Your task to perform on an android device: open app "Speedtest by Ookla" (install if not already installed) and enter user name: "hyena@outlook.com" and password: "terminators" Image 0: 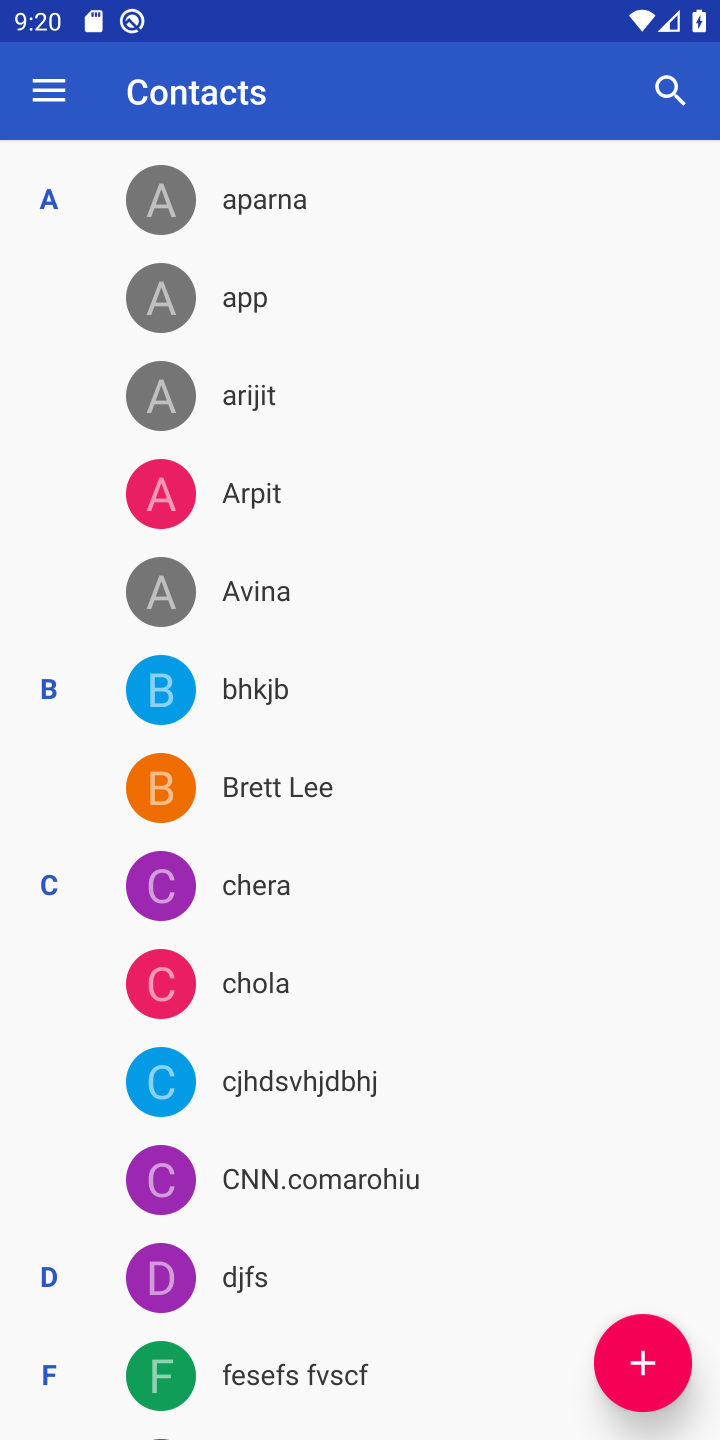
Step 0: press home button
Your task to perform on an android device: open app "Speedtest by Ookla" (install if not already installed) and enter user name: "hyena@outlook.com" and password: "terminators" Image 1: 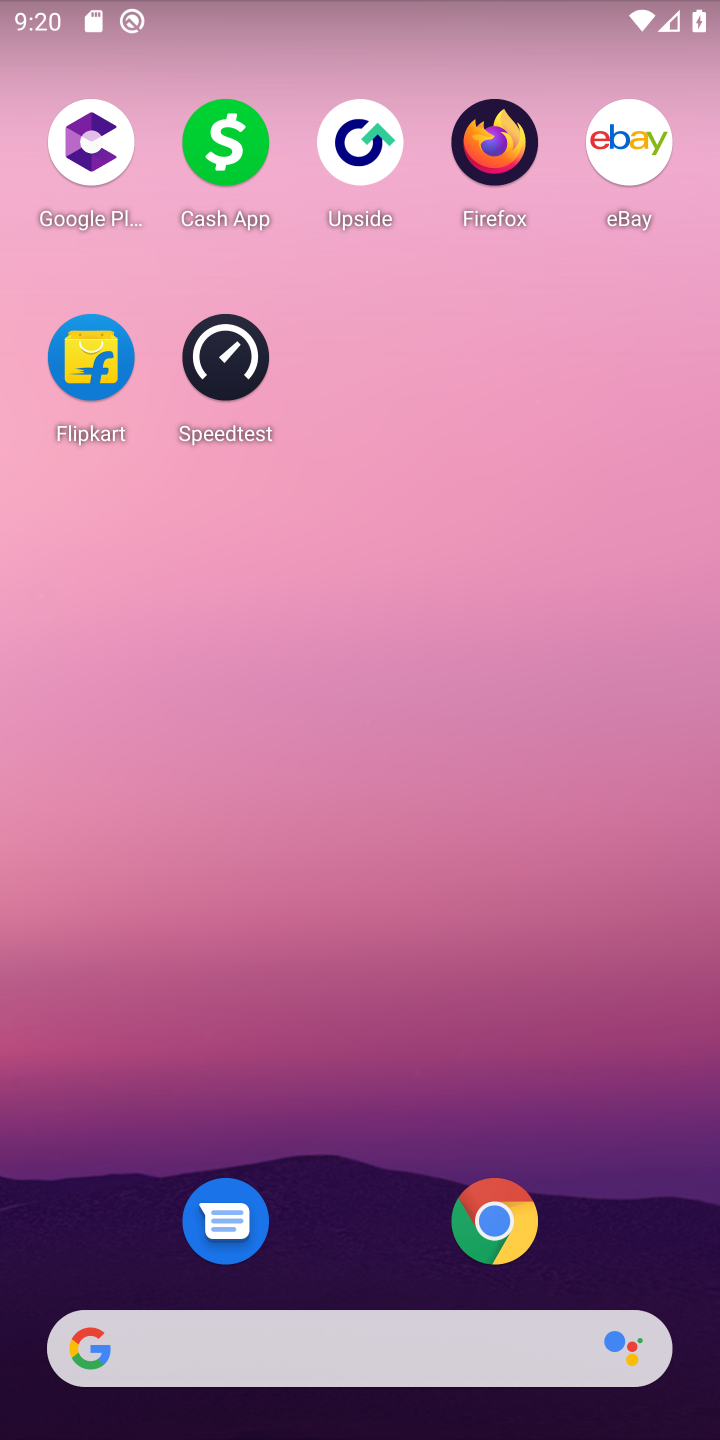
Step 1: drag from (369, 1179) to (336, 269)
Your task to perform on an android device: open app "Speedtest by Ookla" (install if not already installed) and enter user name: "hyena@outlook.com" and password: "terminators" Image 2: 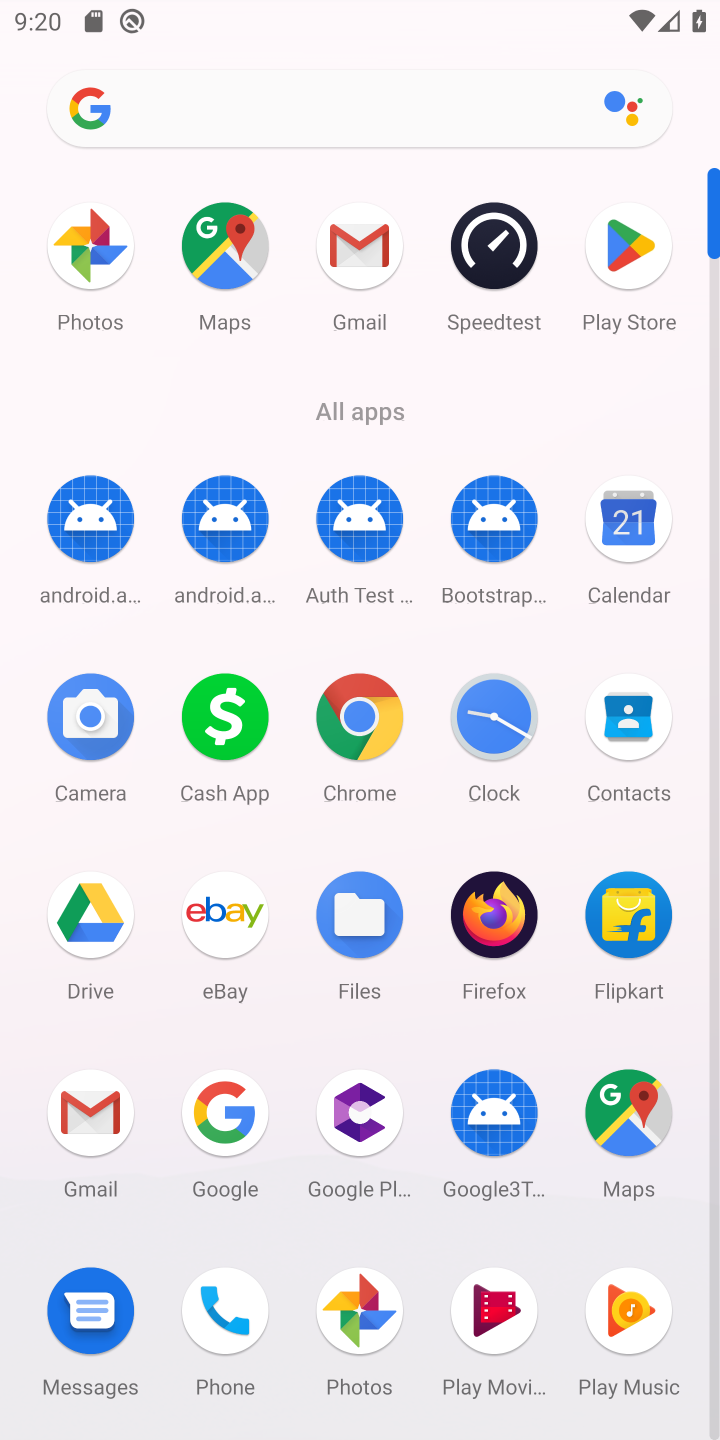
Step 2: click (641, 273)
Your task to perform on an android device: open app "Speedtest by Ookla" (install if not already installed) and enter user name: "hyena@outlook.com" and password: "terminators" Image 3: 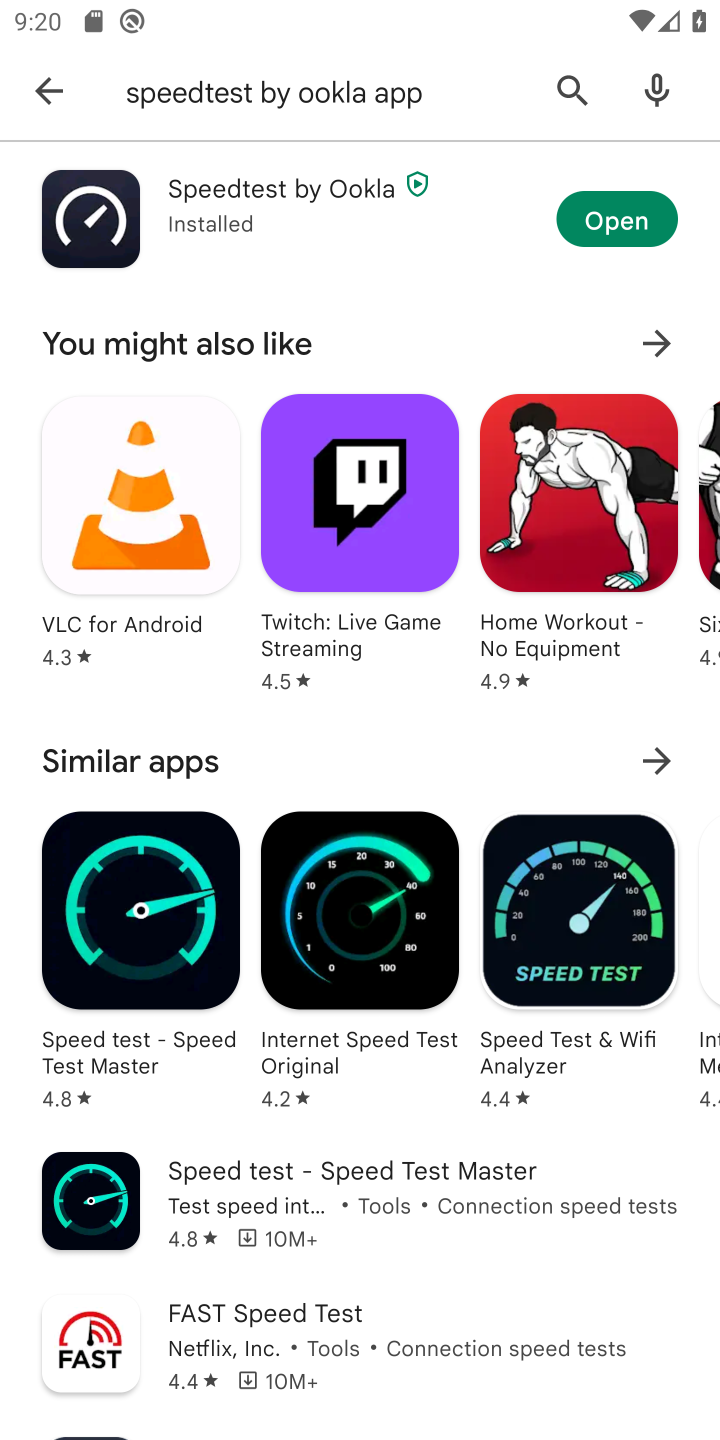
Step 3: click (577, 68)
Your task to perform on an android device: open app "Speedtest by Ookla" (install if not already installed) and enter user name: "hyena@outlook.com" and password: "terminators" Image 4: 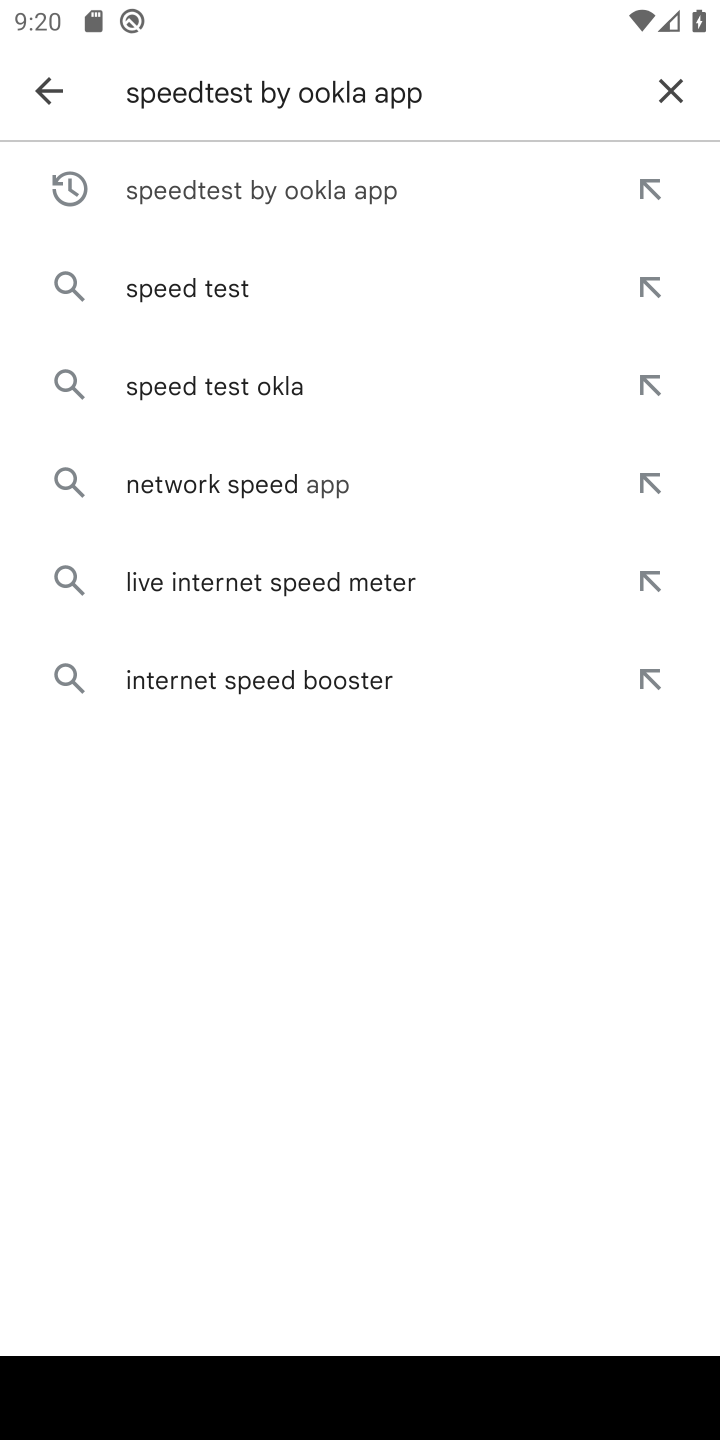
Step 4: click (658, 87)
Your task to perform on an android device: open app "Speedtest by Ookla" (install if not already installed) and enter user name: "hyena@outlook.com" and password: "terminators" Image 5: 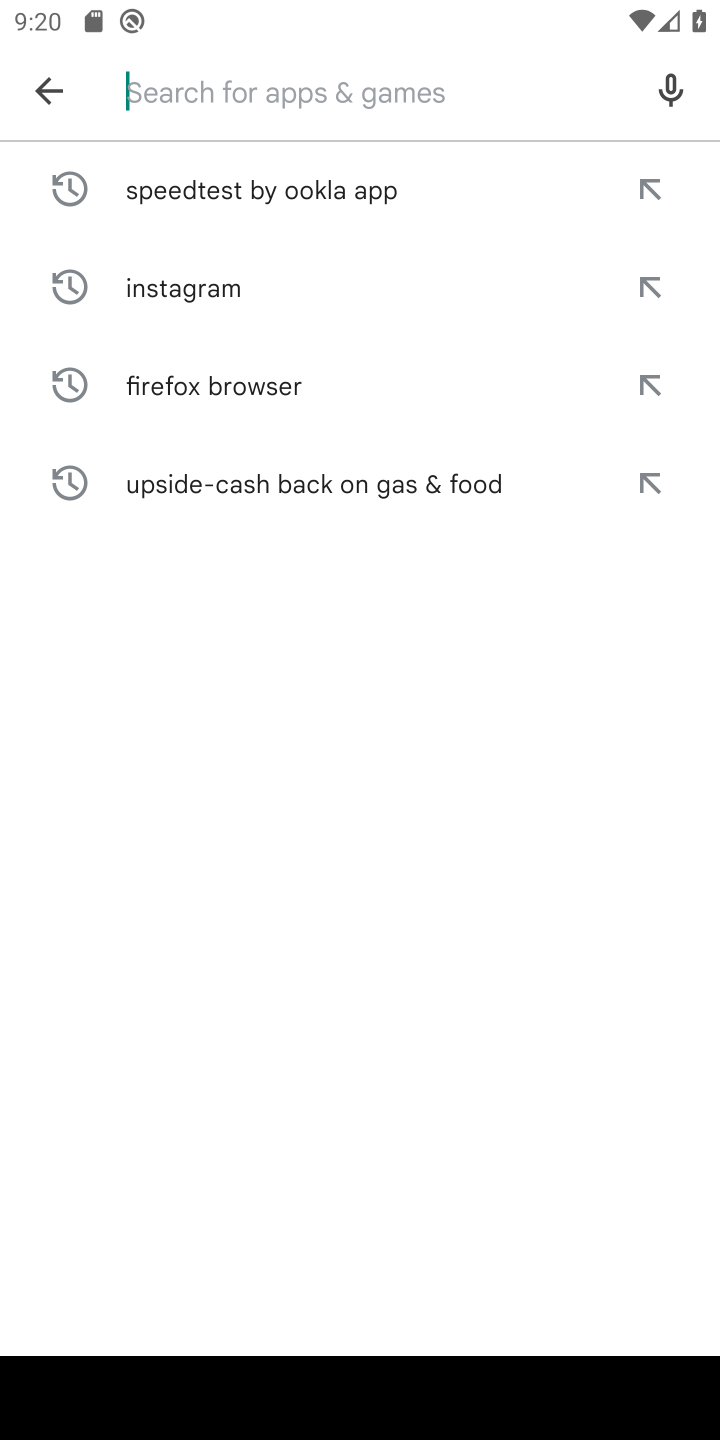
Step 5: type "Speedtest by Ookla"
Your task to perform on an android device: open app "Speedtest by Ookla" (install if not already installed) and enter user name: "hyena@outlook.com" and password: "terminators" Image 6: 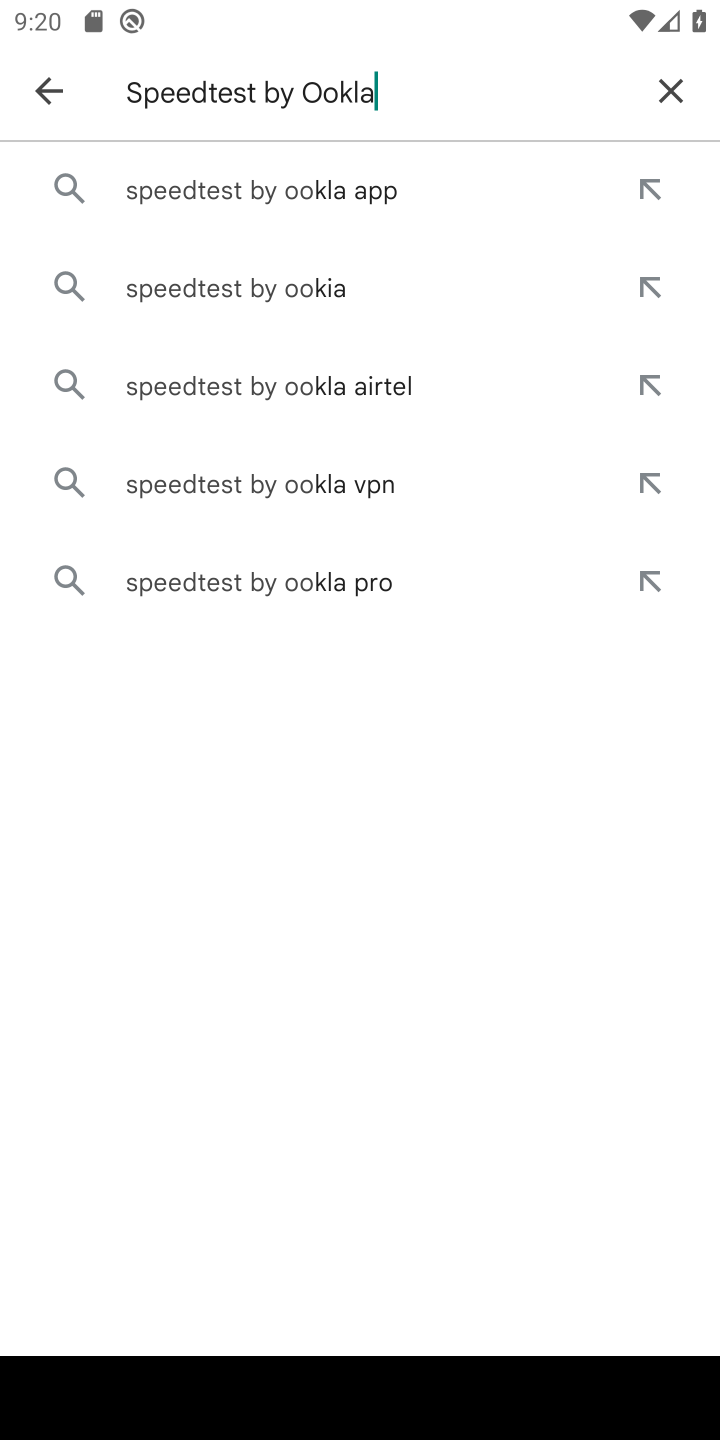
Step 6: type ""
Your task to perform on an android device: open app "Speedtest by Ookla" (install if not already installed) and enter user name: "hyena@outlook.com" and password: "terminators" Image 7: 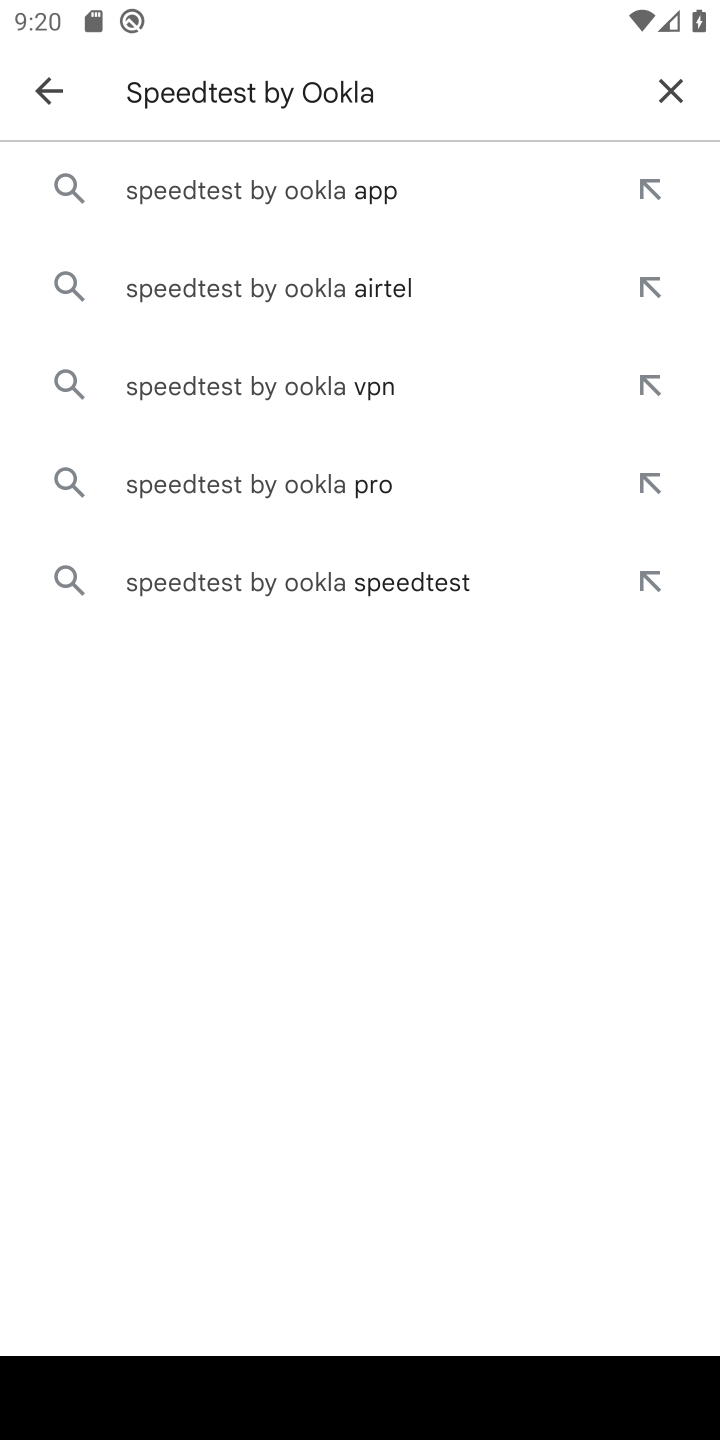
Step 7: click (418, 199)
Your task to perform on an android device: open app "Speedtest by Ookla" (install if not already installed) and enter user name: "hyena@outlook.com" and password: "terminators" Image 8: 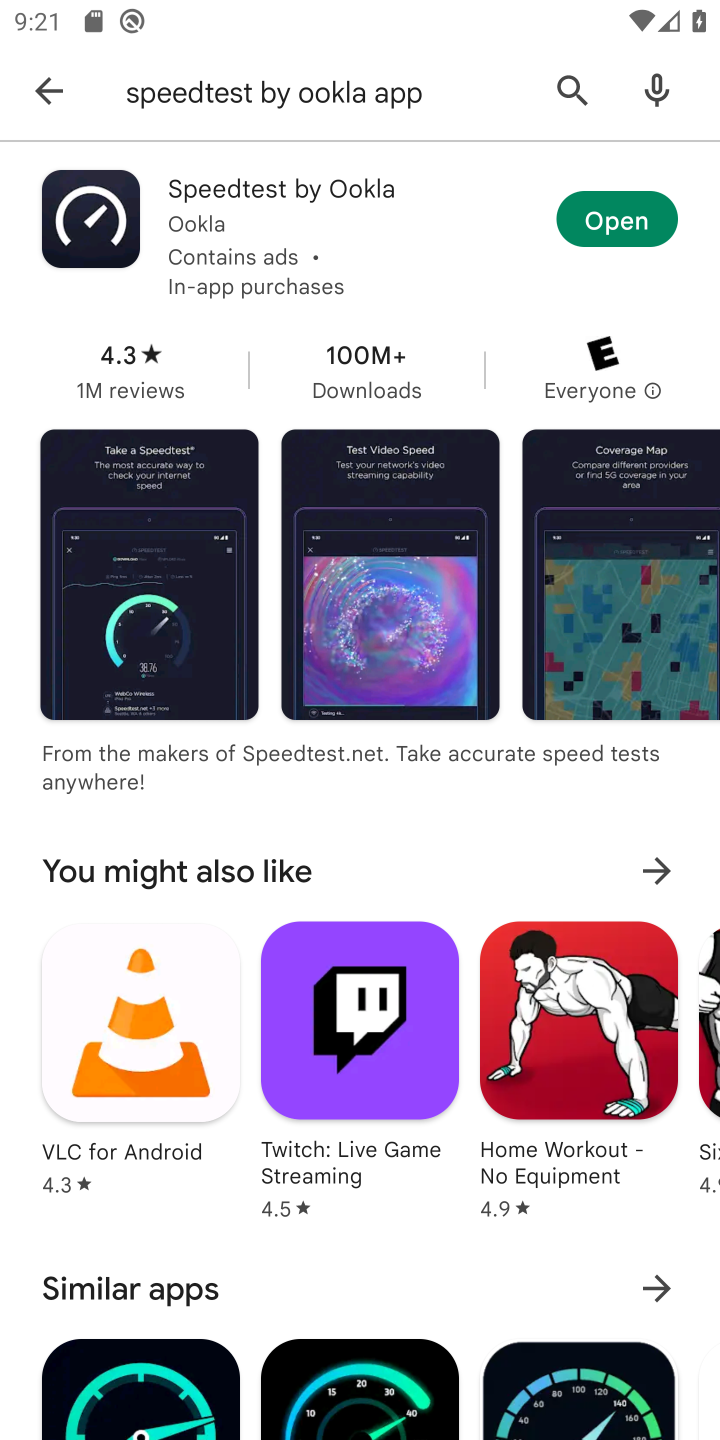
Step 8: click (610, 219)
Your task to perform on an android device: open app "Speedtest by Ookla" (install if not already installed) and enter user name: "hyena@outlook.com" and password: "terminators" Image 9: 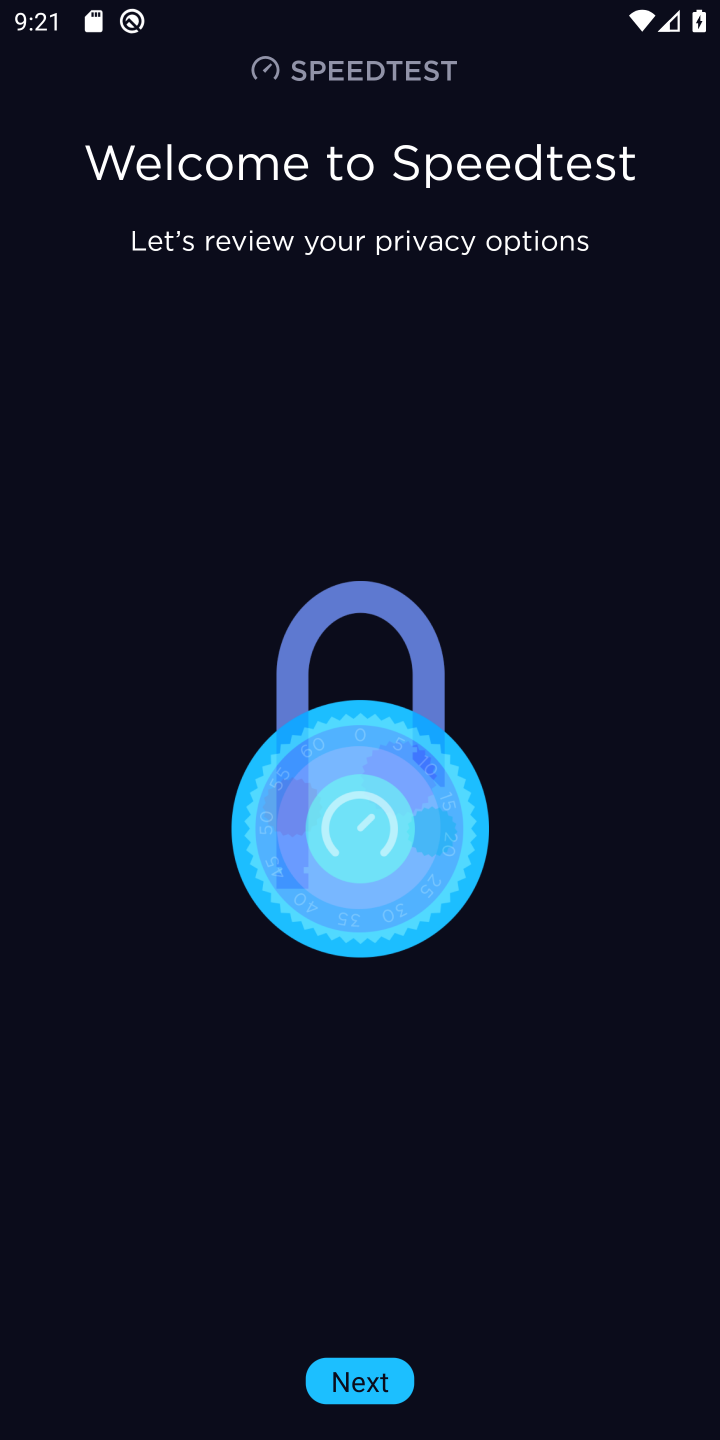
Step 9: task complete